Your task to perform on an android device: change the clock display to show seconds Image 0: 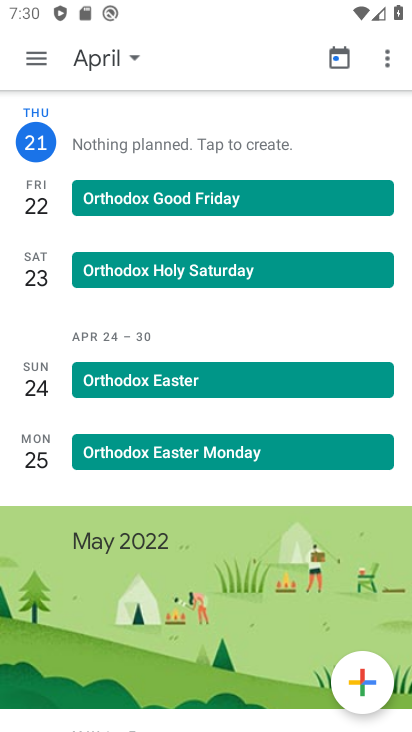
Step 0: press home button
Your task to perform on an android device: change the clock display to show seconds Image 1: 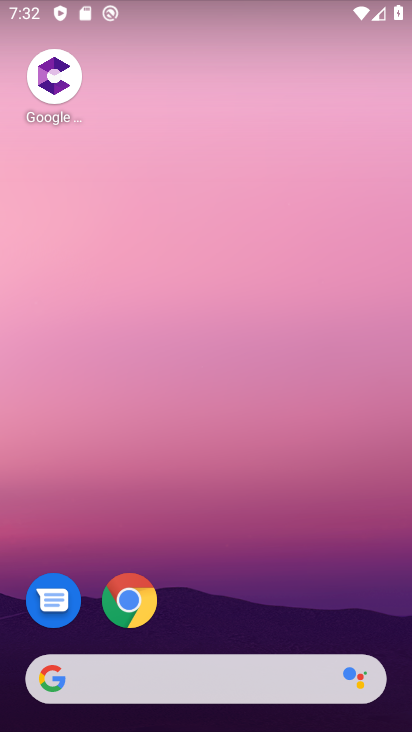
Step 1: drag from (141, 447) to (233, 182)
Your task to perform on an android device: change the clock display to show seconds Image 2: 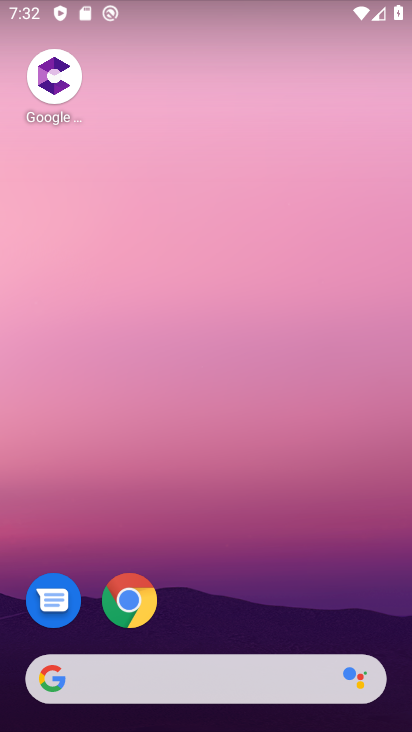
Step 2: drag from (72, 473) to (220, 228)
Your task to perform on an android device: change the clock display to show seconds Image 3: 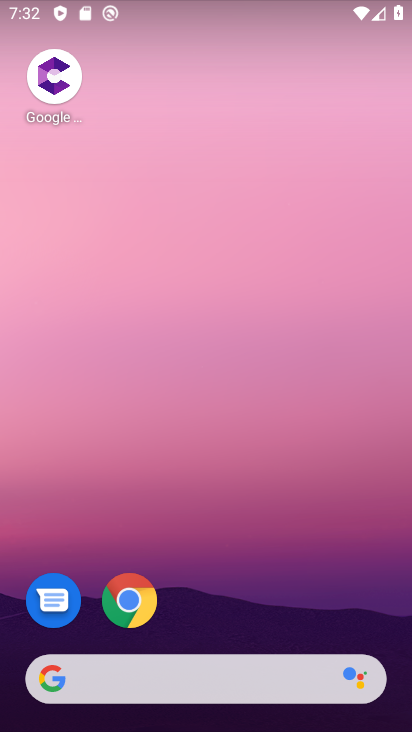
Step 3: drag from (25, 519) to (276, 127)
Your task to perform on an android device: change the clock display to show seconds Image 4: 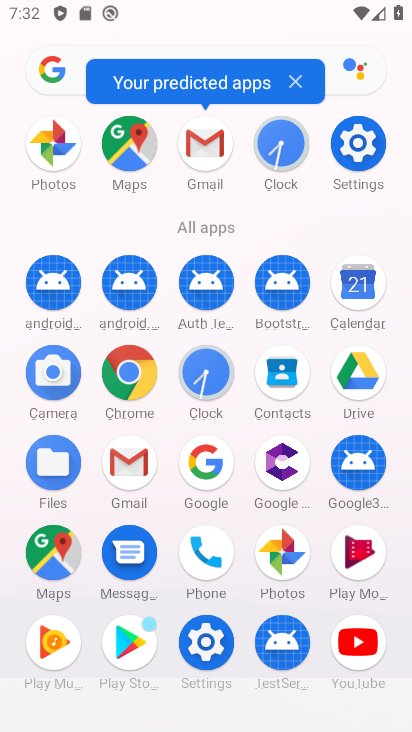
Step 4: click (277, 157)
Your task to perform on an android device: change the clock display to show seconds Image 5: 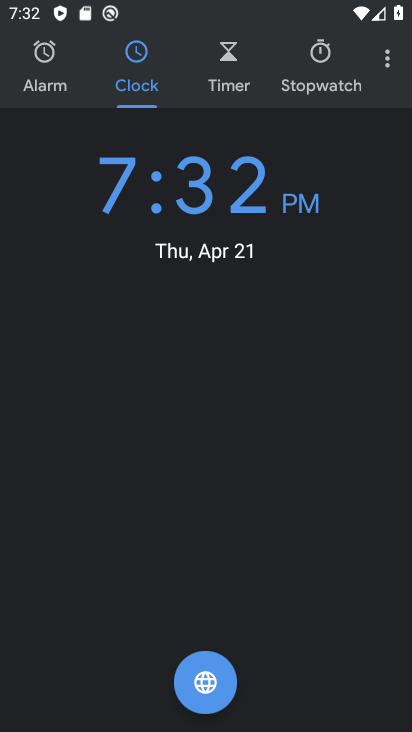
Step 5: click (391, 61)
Your task to perform on an android device: change the clock display to show seconds Image 6: 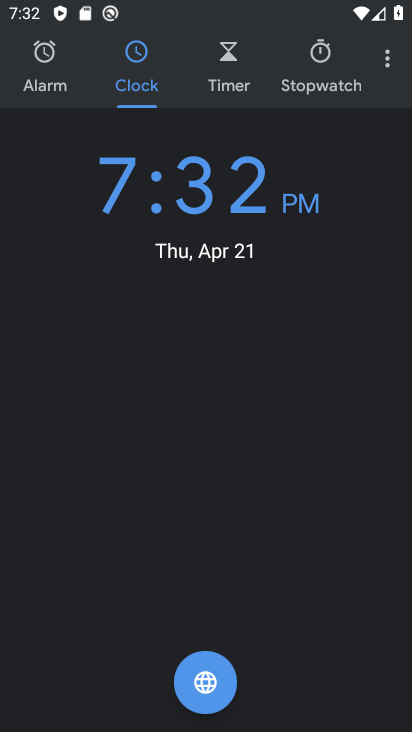
Step 6: click (388, 61)
Your task to perform on an android device: change the clock display to show seconds Image 7: 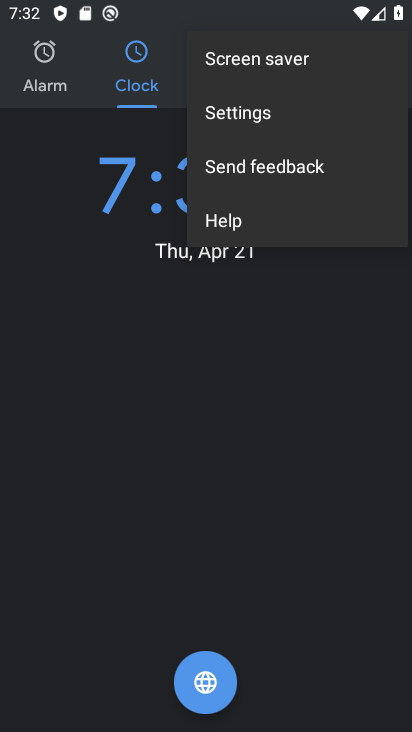
Step 7: click (261, 117)
Your task to perform on an android device: change the clock display to show seconds Image 8: 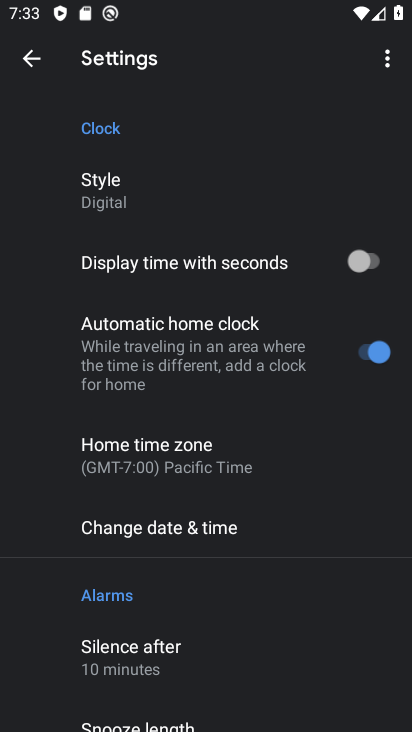
Step 8: click (365, 263)
Your task to perform on an android device: change the clock display to show seconds Image 9: 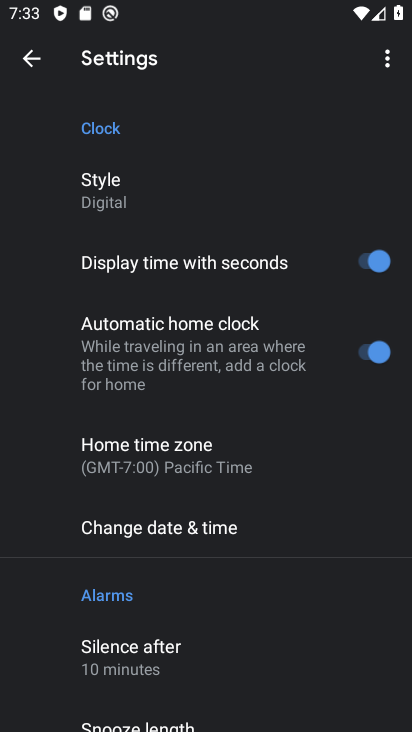
Step 9: task complete